Your task to perform on an android device: turn off notifications settings in the gmail app Image 0: 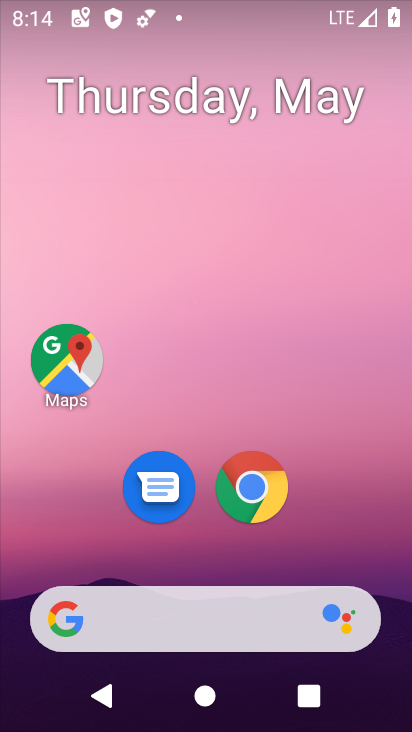
Step 0: drag from (194, 527) to (238, 142)
Your task to perform on an android device: turn off notifications settings in the gmail app Image 1: 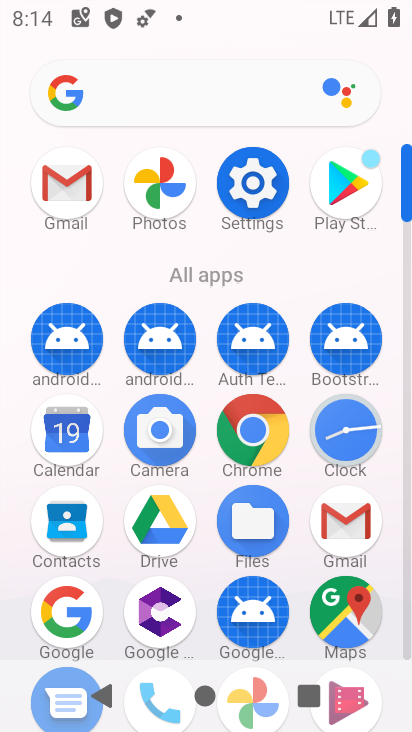
Step 1: click (321, 523)
Your task to perform on an android device: turn off notifications settings in the gmail app Image 2: 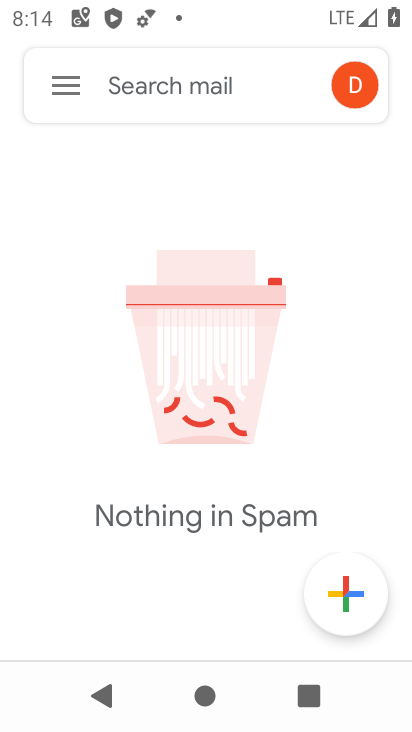
Step 2: drag from (214, 593) to (229, 8)
Your task to perform on an android device: turn off notifications settings in the gmail app Image 3: 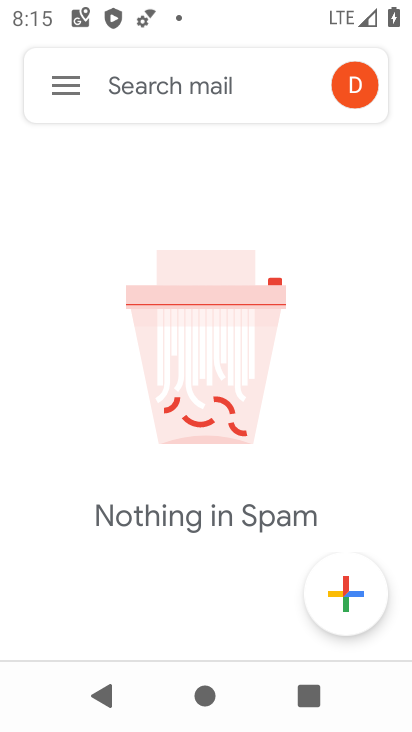
Step 3: click (73, 92)
Your task to perform on an android device: turn off notifications settings in the gmail app Image 4: 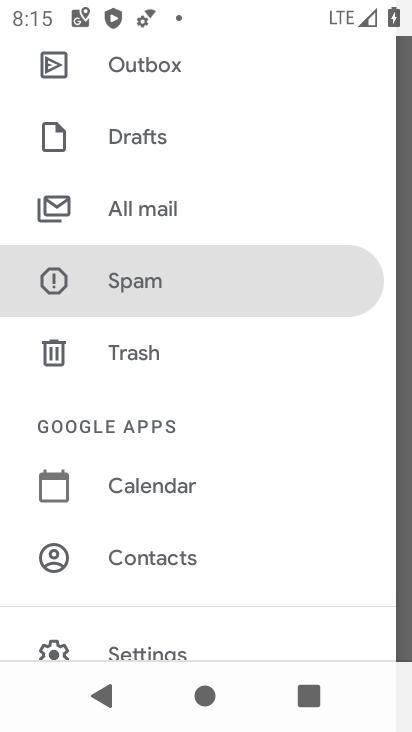
Step 4: click (144, 640)
Your task to perform on an android device: turn off notifications settings in the gmail app Image 5: 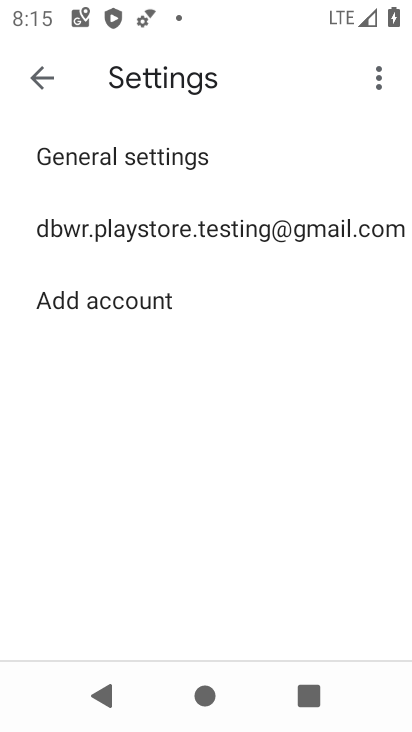
Step 5: click (126, 238)
Your task to perform on an android device: turn off notifications settings in the gmail app Image 6: 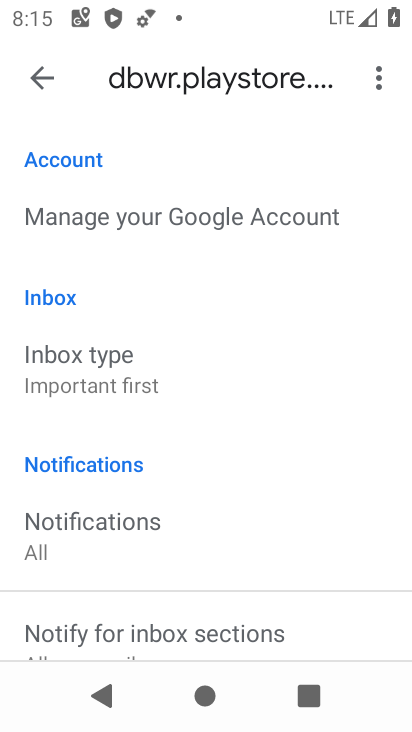
Step 6: drag from (136, 541) to (196, 190)
Your task to perform on an android device: turn off notifications settings in the gmail app Image 7: 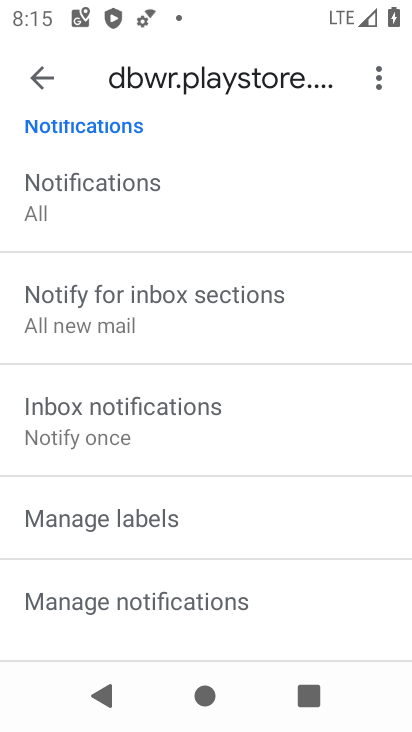
Step 7: click (97, 574)
Your task to perform on an android device: turn off notifications settings in the gmail app Image 8: 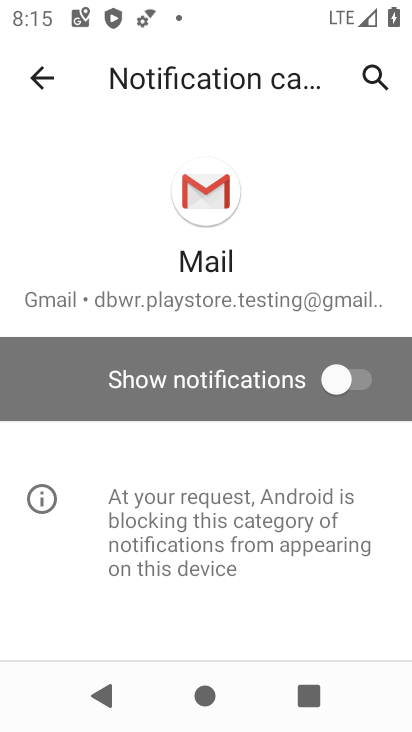
Step 8: task complete